Your task to perform on an android device: add a label to a message in the gmail app Image 0: 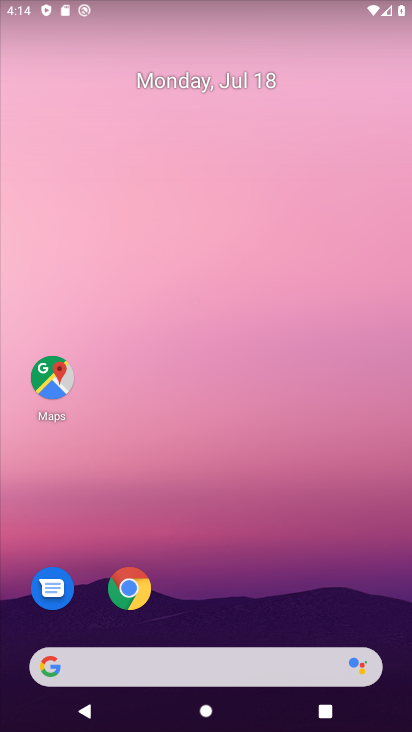
Step 0: drag from (234, 621) to (279, 52)
Your task to perform on an android device: add a label to a message in the gmail app Image 1: 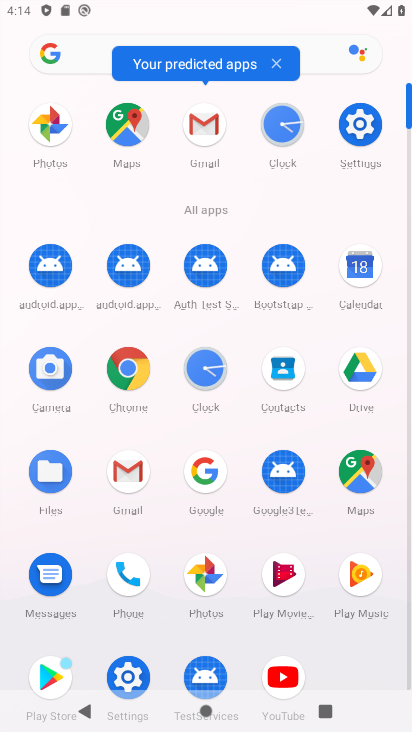
Step 1: click (203, 123)
Your task to perform on an android device: add a label to a message in the gmail app Image 2: 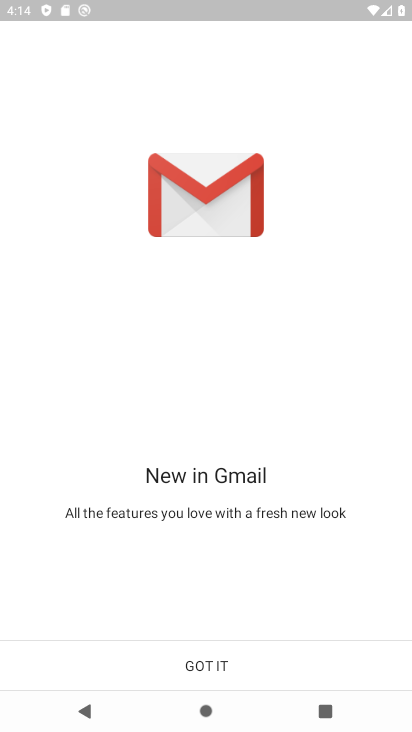
Step 2: click (212, 665)
Your task to perform on an android device: add a label to a message in the gmail app Image 3: 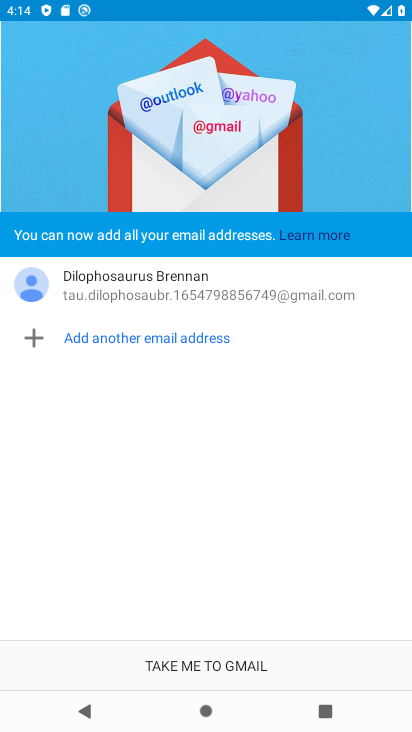
Step 3: click (204, 665)
Your task to perform on an android device: add a label to a message in the gmail app Image 4: 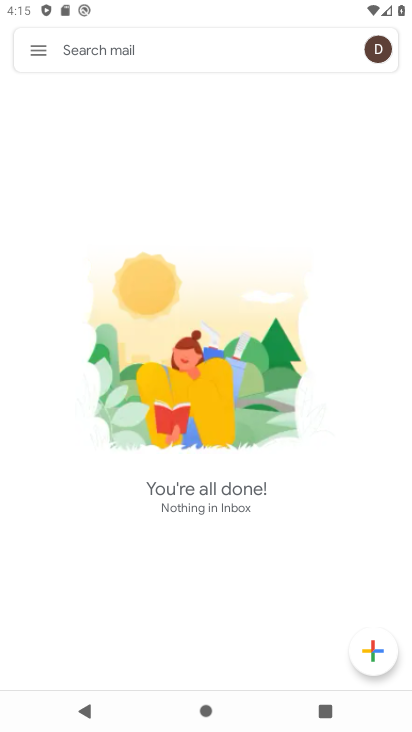
Step 4: task complete